Your task to perform on an android device: toggle javascript in the chrome app Image 0: 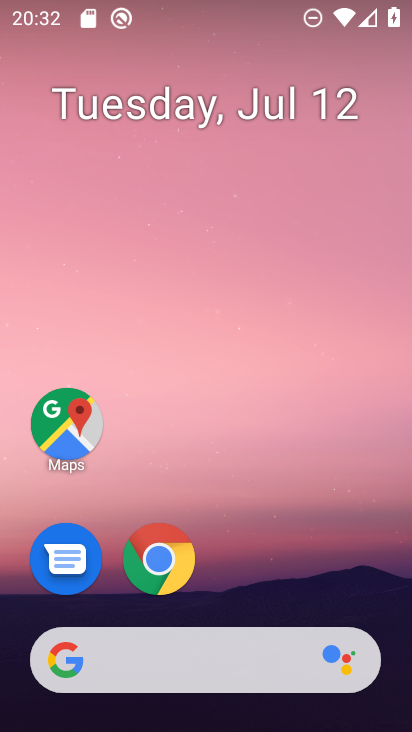
Step 0: drag from (372, 584) to (386, 116)
Your task to perform on an android device: toggle javascript in the chrome app Image 1: 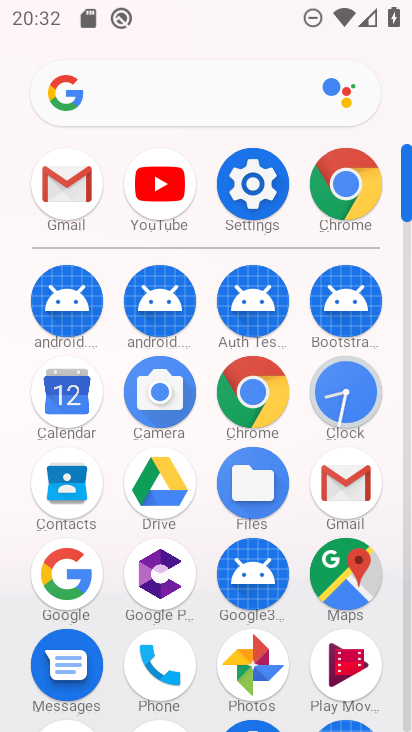
Step 1: click (364, 184)
Your task to perform on an android device: toggle javascript in the chrome app Image 2: 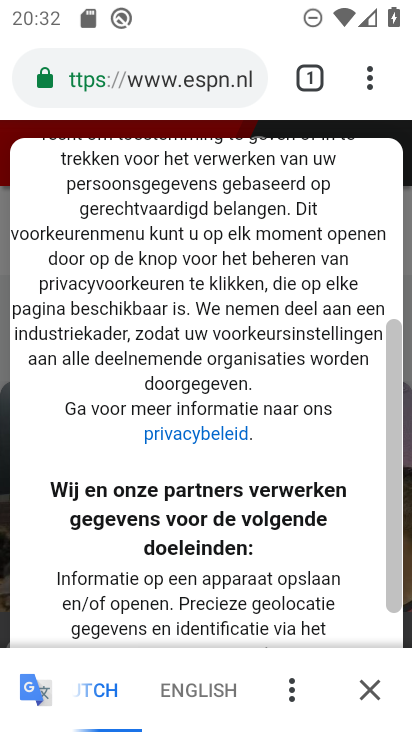
Step 2: click (369, 85)
Your task to perform on an android device: toggle javascript in the chrome app Image 3: 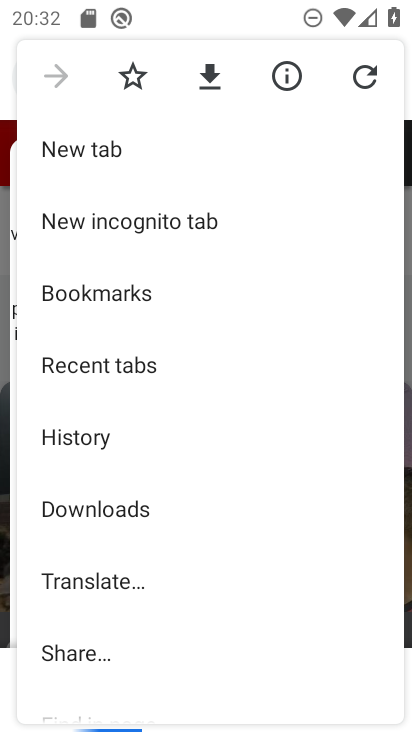
Step 3: drag from (308, 513) to (319, 427)
Your task to perform on an android device: toggle javascript in the chrome app Image 4: 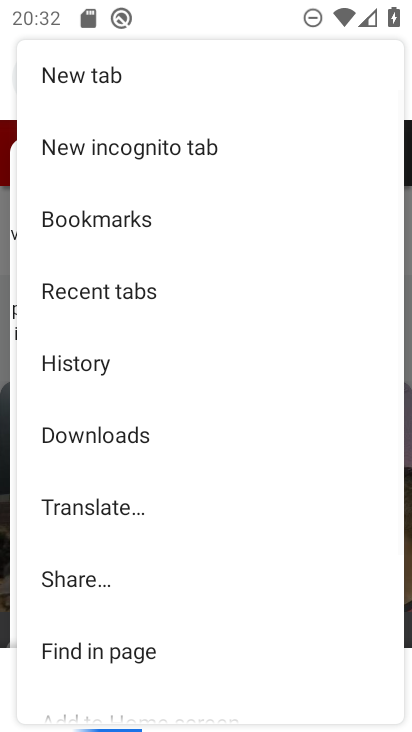
Step 4: drag from (322, 541) to (333, 447)
Your task to perform on an android device: toggle javascript in the chrome app Image 5: 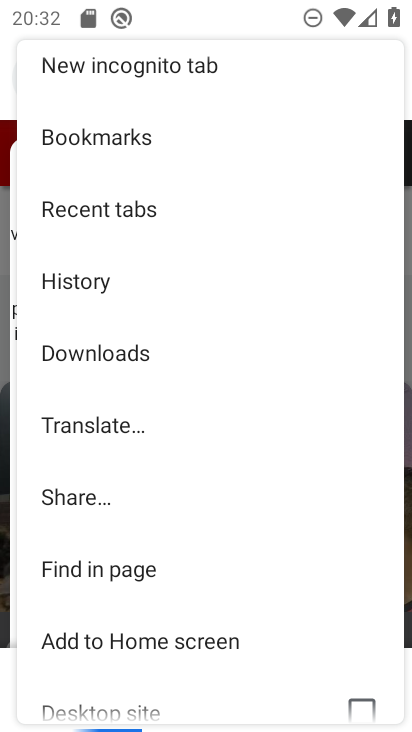
Step 5: drag from (325, 500) to (324, 393)
Your task to perform on an android device: toggle javascript in the chrome app Image 6: 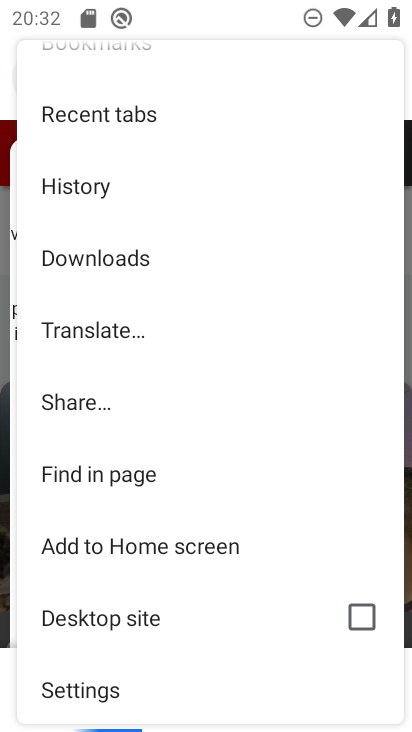
Step 6: drag from (302, 532) to (297, 358)
Your task to perform on an android device: toggle javascript in the chrome app Image 7: 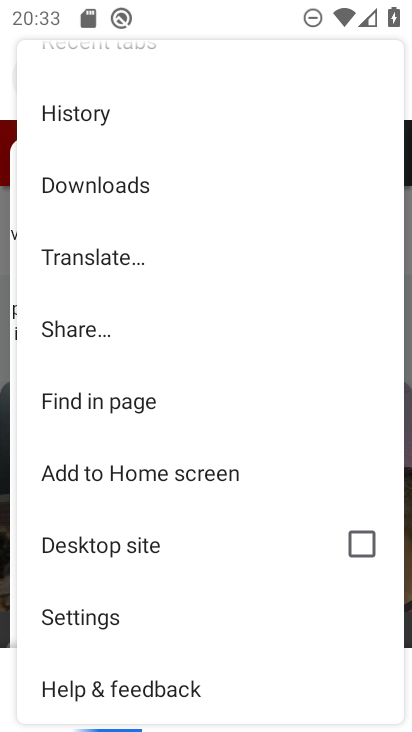
Step 7: click (130, 626)
Your task to perform on an android device: toggle javascript in the chrome app Image 8: 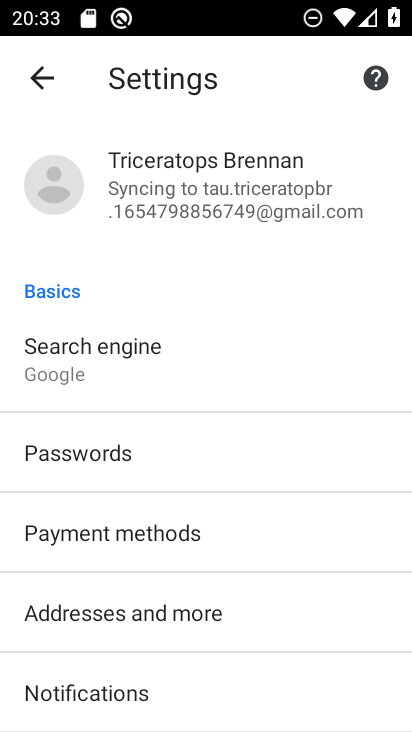
Step 8: drag from (291, 431) to (308, 343)
Your task to perform on an android device: toggle javascript in the chrome app Image 9: 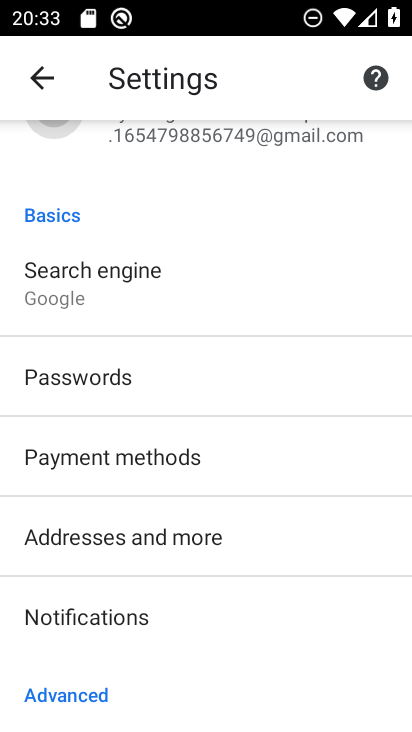
Step 9: drag from (321, 452) to (335, 364)
Your task to perform on an android device: toggle javascript in the chrome app Image 10: 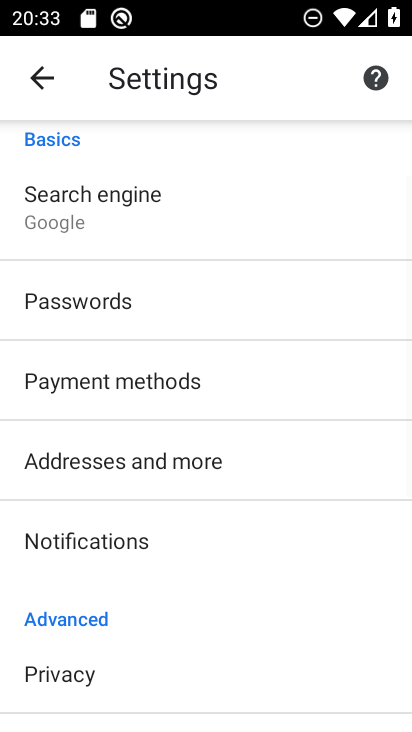
Step 10: drag from (332, 451) to (338, 337)
Your task to perform on an android device: toggle javascript in the chrome app Image 11: 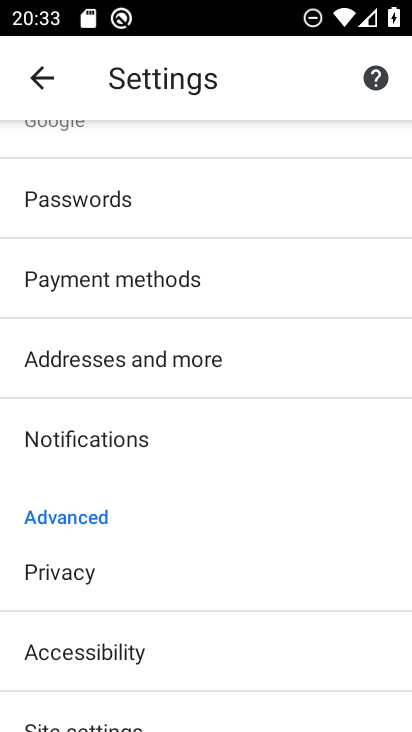
Step 11: drag from (341, 480) to (350, 384)
Your task to perform on an android device: toggle javascript in the chrome app Image 12: 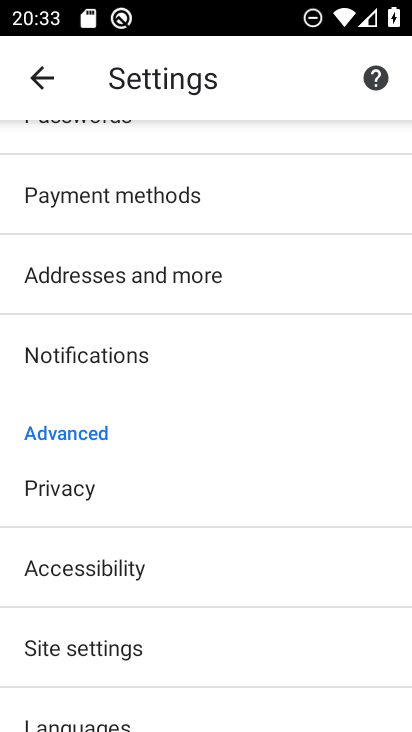
Step 12: drag from (340, 489) to (339, 388)
Your task to perform on an android device: toggle javascript in the chrome app Image 13: 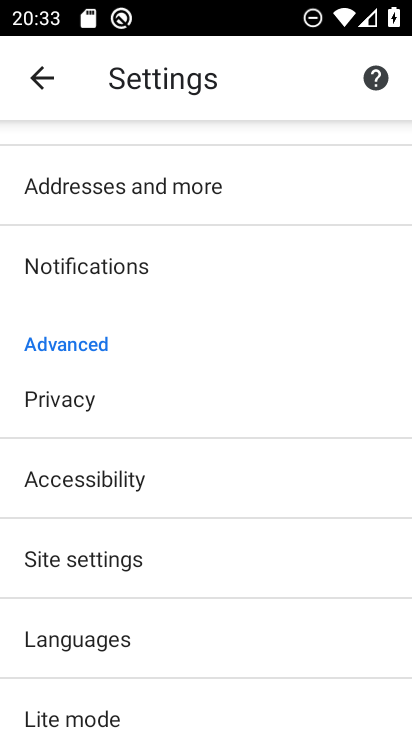
Step 13: drag from (319, 506) to (327, 391)
Your task to perform on an android device: toggle javascript in the chrome app Image 14: 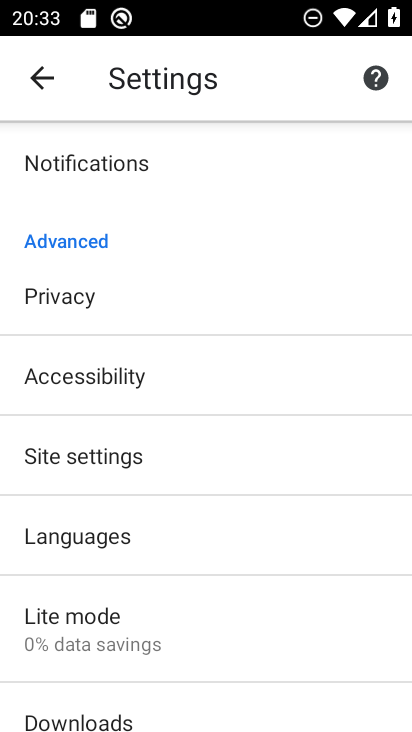
Step 14: drag from (308, 529) to (308, 406)
Your task to perform on an android device: toggle javascript in the chrome app Image 15: 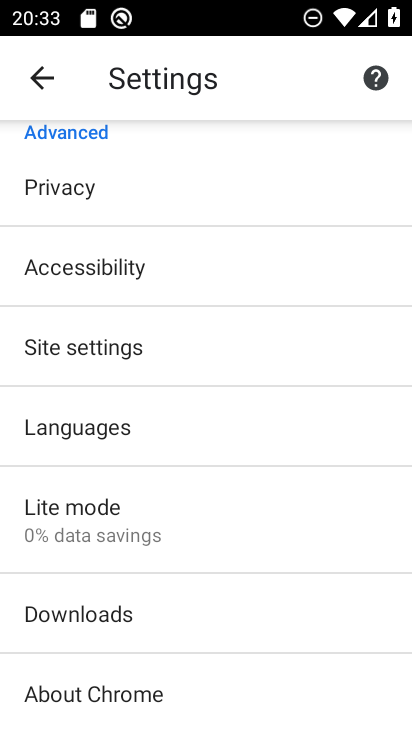
Step 15: drag from (308, 526) to (321, 413)
Your task to perform on an android device: toggle javascript in the chrome app Image 16: 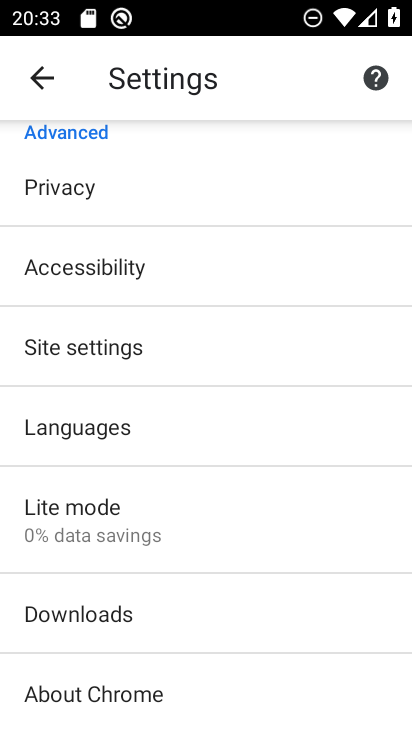
Step 16: drag from (315, 263) to (306, 367)
Your task to perform on an android device: toggle javascript in the chrome app Image 17: 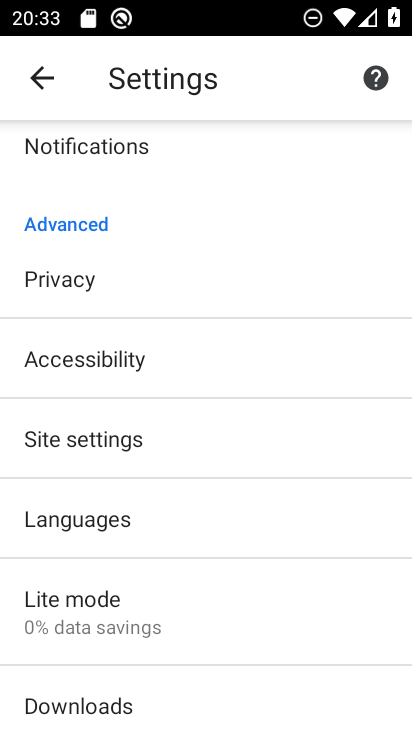
Step 17: drag from (315, 216) to (310, 318)
Your task to perform on an android device: toggle javascript in the chrome app Image 18: 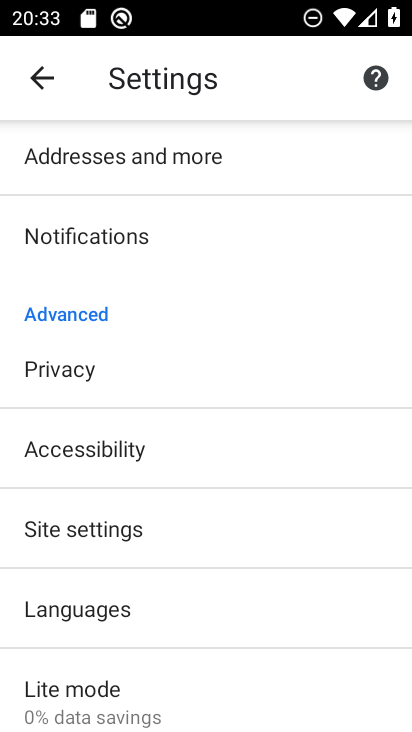
Step 18: drag from (316, 234) to (316, 336)
Your task to perform on an android device: toggle javascript in the chrome app Image 19: 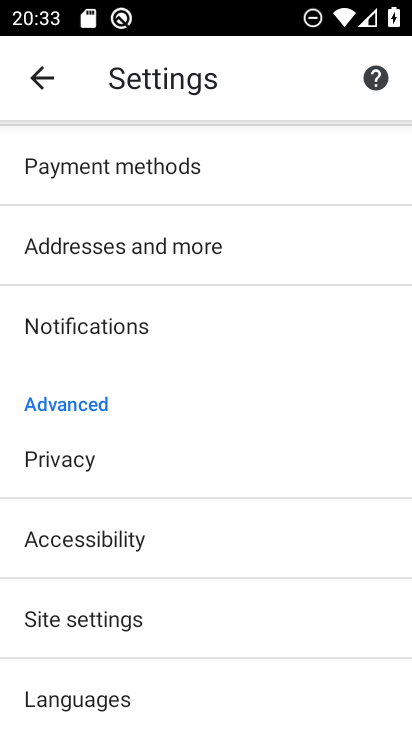
Step 19: drag from (262, 500) to (288, 153)
Your task to perform on an android device: toggle javascript in the chrome app Image 20: 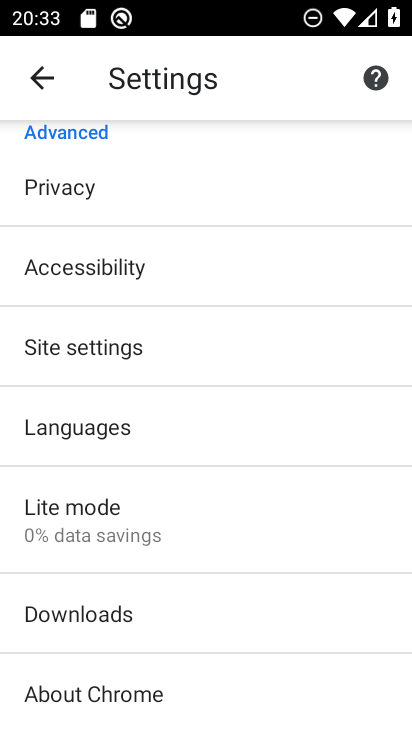
Step 20: click (236, 340)
Your task to perform on an android device: toggle javascript in the chrome app Image 21: 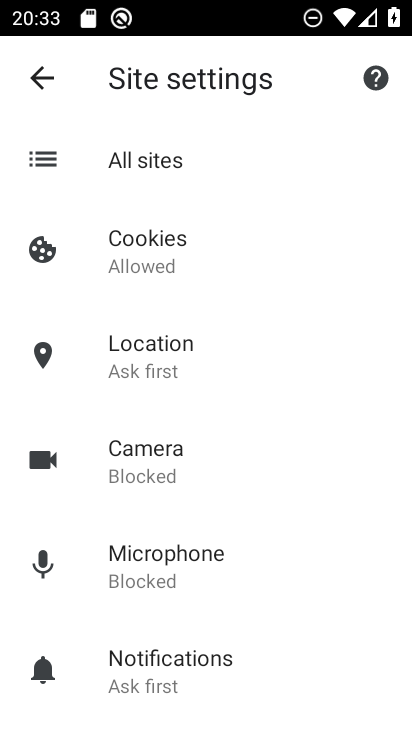
Step 21: drag from (287, 449) to (287, 353)
Your task to perform on an android device: toggle javascript in the chrome app Image 22: 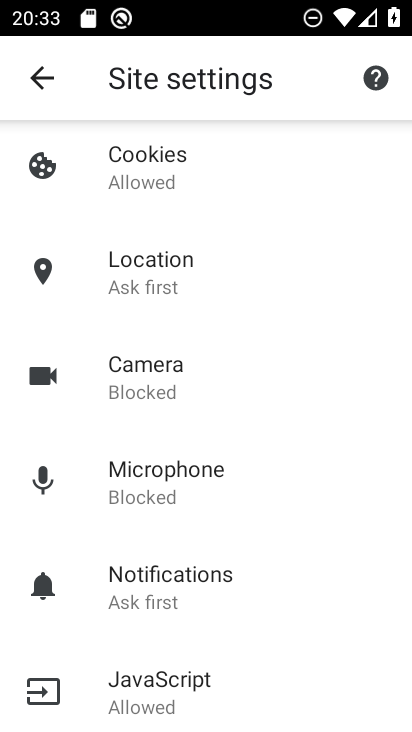
Step 22: drag from (309, 480) to (316, 363)
Your task to perform on an android device: toggle javascript in the chrome app Image 23: 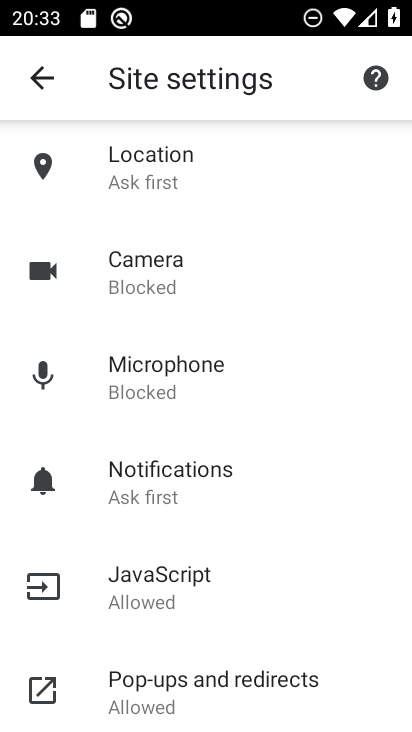
Step 23: drag from (318, 491) to (338, 382)
Your task to perform on an android device: toggle javascript in the chrome app Image 24: 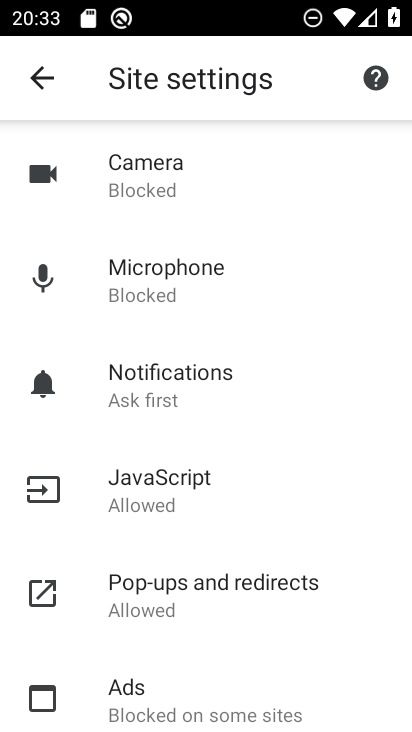
Step 24: click (322, 477)
Your task to perform on an android device: toggle javascript in the chrome app Image 25: 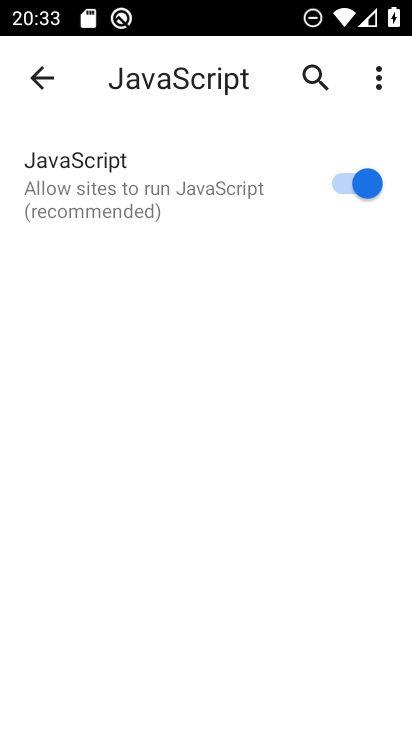
Step 25: click (368, 201)
Your task to perform on an android device: toggle javascript in the chrome app Image 26: 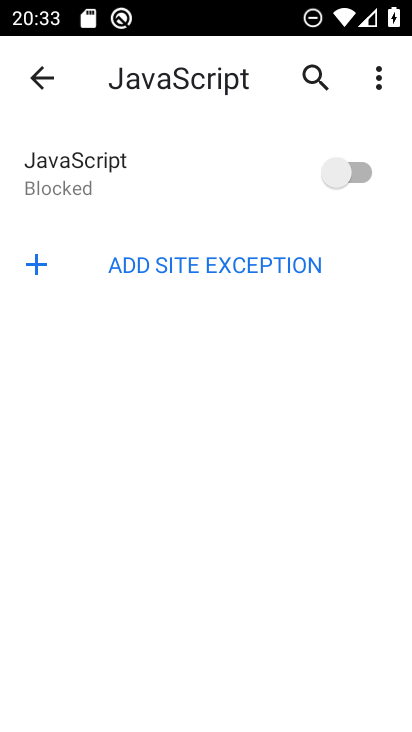
Step 26: task complete